Your task to perform on an android device: Open Google Maps Image 0: 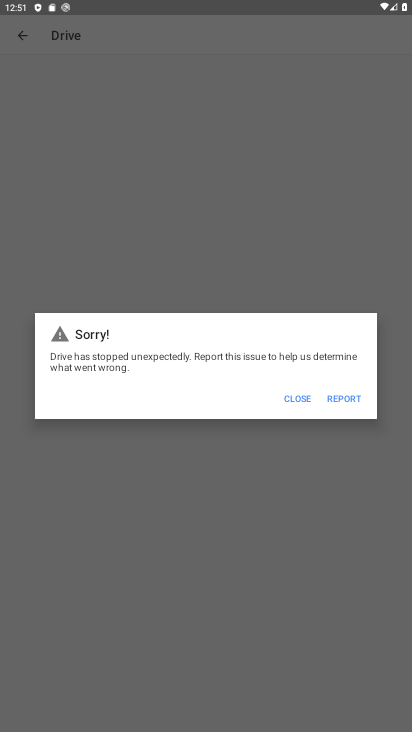
Step 0: press home button
Your task to perform on an android device: Open Google Maps Image 1: 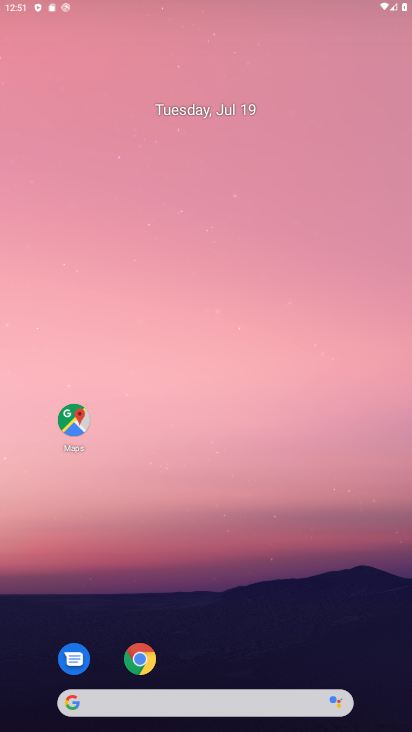
Step 1: drag from (245, 687) to (269, 548)
Your task to perform on an android device: Open Google Maps Image 2: 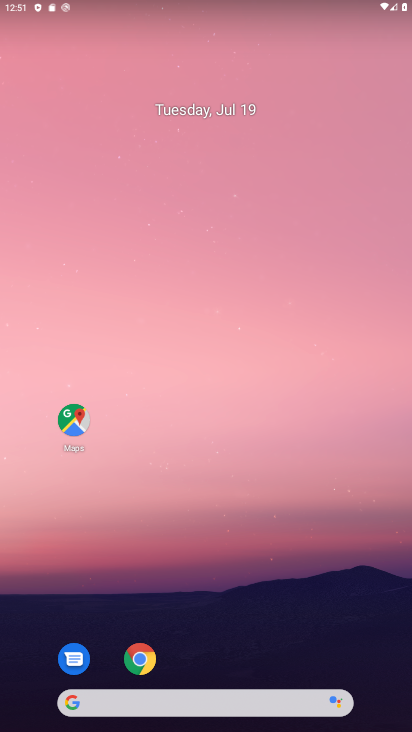
Step 2: click (70, 404)
Your task to perform on an android device: Open Google Maps Image 3: 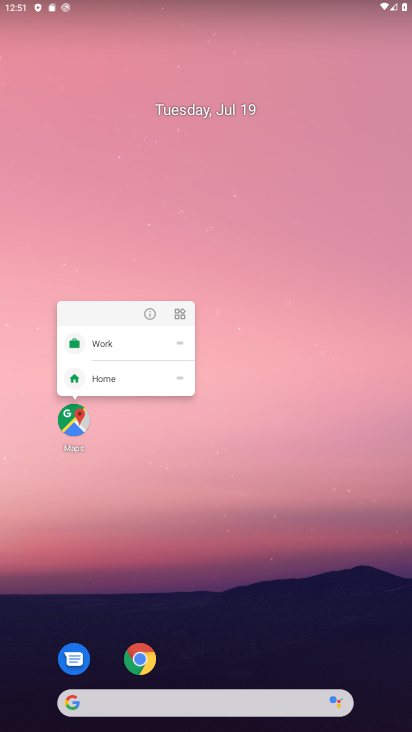
Step 3: click (87, 440)
Your task to perform on an android device: Open Google Maps Image 4: 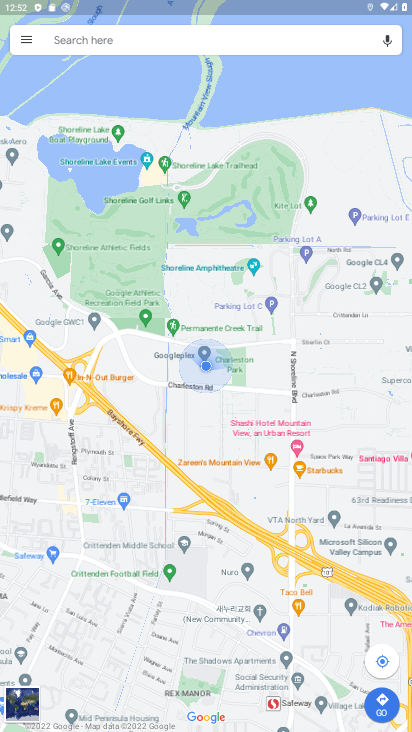
Step 4: task complete